Your task to perform on an android device: empty trash in the gmail app Image 0: 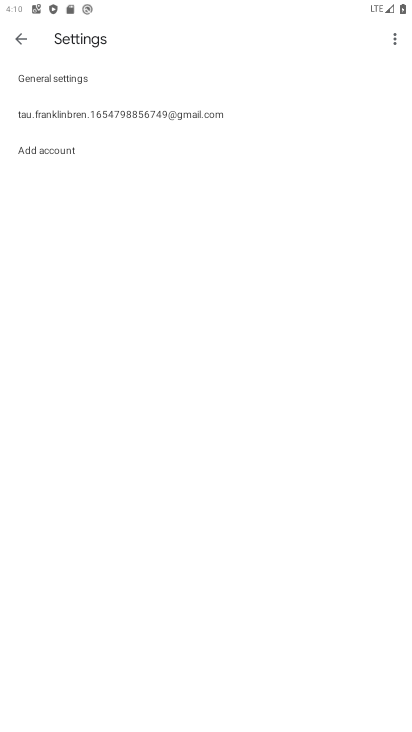
Step 0: press home button
Your task to perform on an android device: empty trash in the gmail app Image 1: 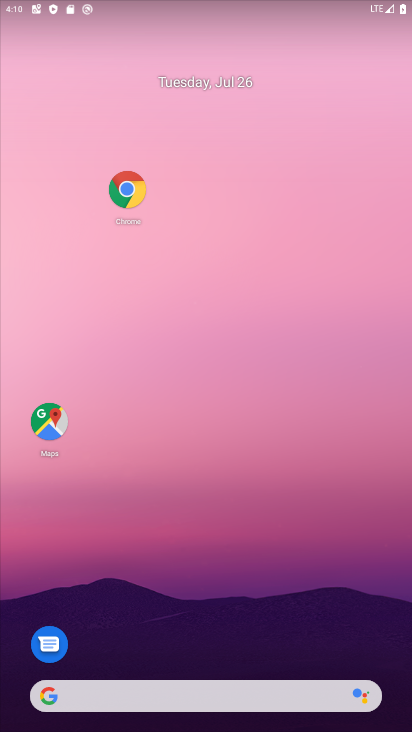
Step 1: drag from (253, 679) to (266, 281)
Your task to perform on an android device: empty trash in the gmail app Image 2: 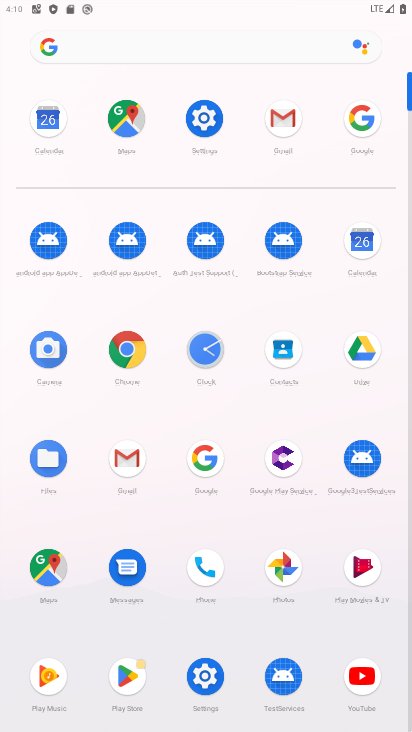
Step 2: click (284, 121)
Your task to perform on an android device: empty trash in the gmail app Image 3: 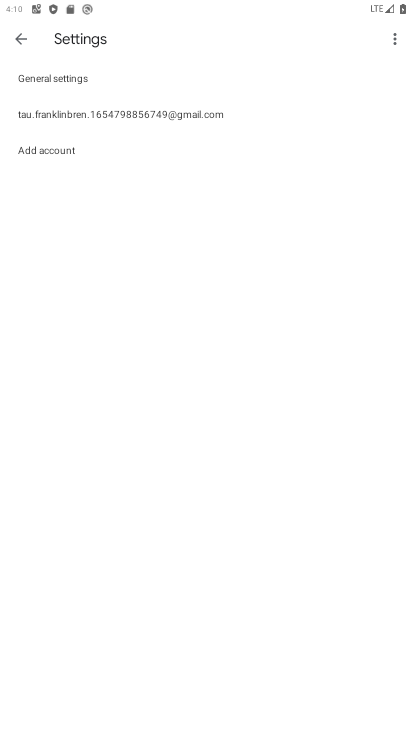
Step 3: click (21, 34)
Your task to perform on an android device: empty trash in the gmail app Image 4: 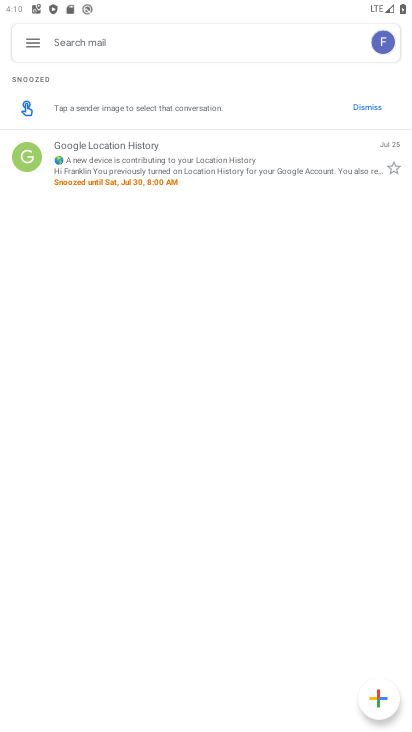
Step 4: click (29, 38)
Your task to perform on an android device: empty trash in the gmail app Image 5: 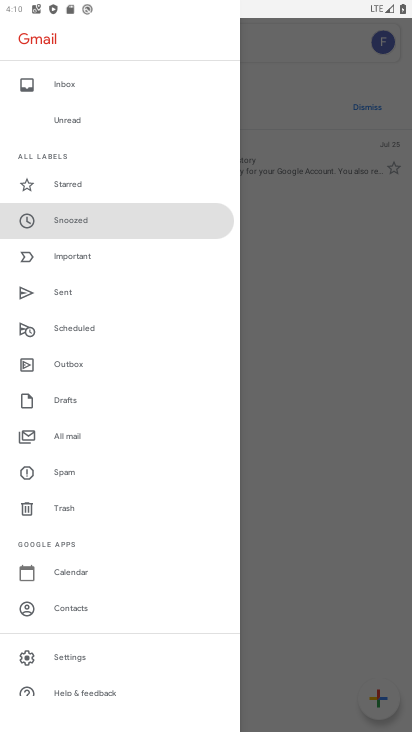
Step 5: click (63, 496)
Your task to perform on an android device: empty trash in the gmail app Image 6: 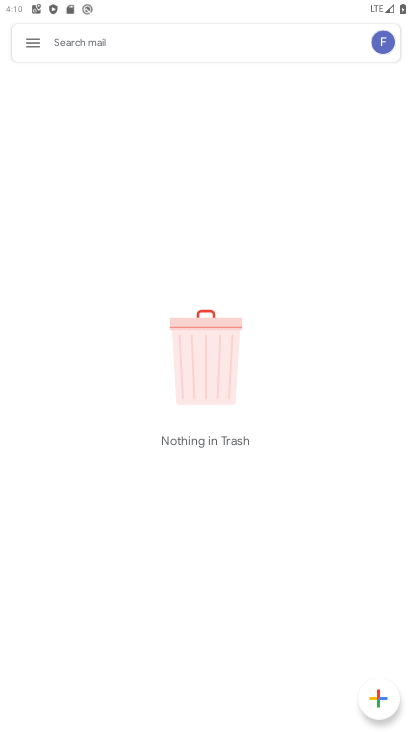
Step 6: task complete